Your task to perform on an android device: turn on data saver in the chrome app Image 0: 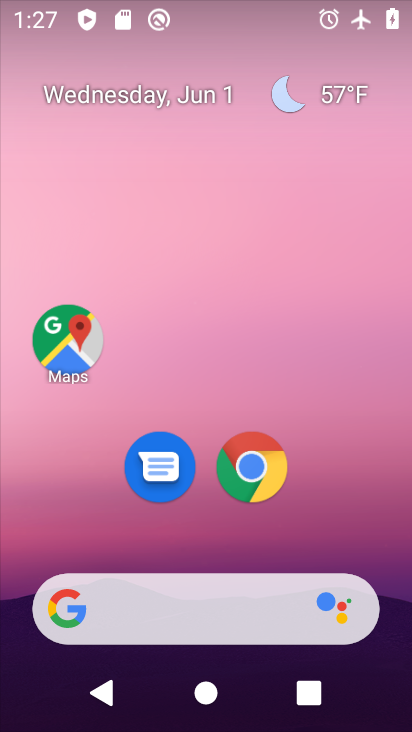
Step 0: drag from (387, 566) to (381, 198)
Your task to perform on an android device: turn on data saver in the chrome app Image 1: 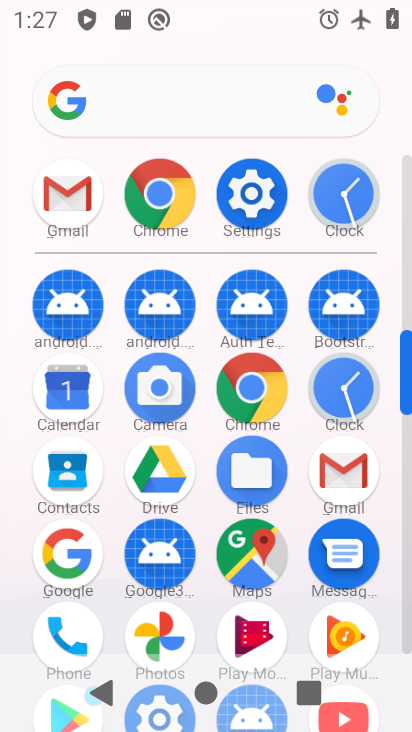
Step 1: click (267, 401)
Your task to perform on an android device: turn on data saver in the chrome app Image 2: 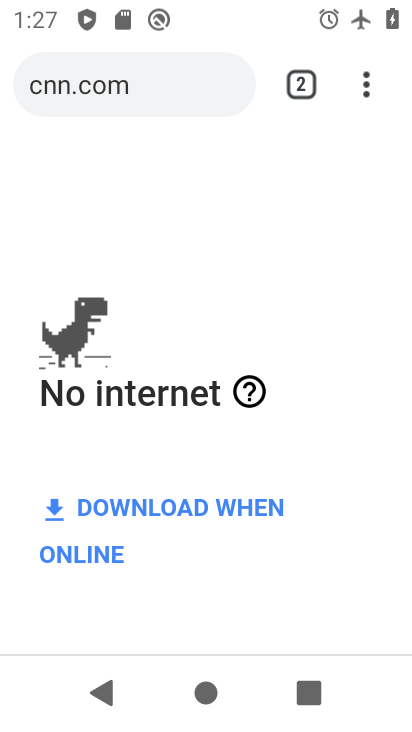
Step 2: click (370, 93)
Your task to perform on an android device: turn on data saver in the chrome app Image 3: 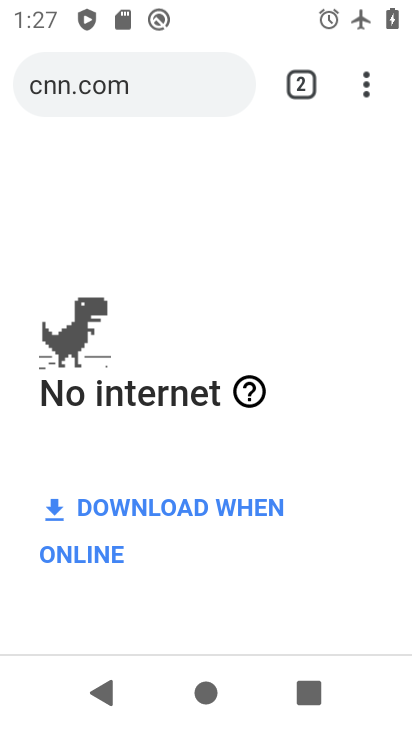
Step 3: click (362, 87)
Your task to perform on an android device: turn on data saver in the chrome app Image 4: 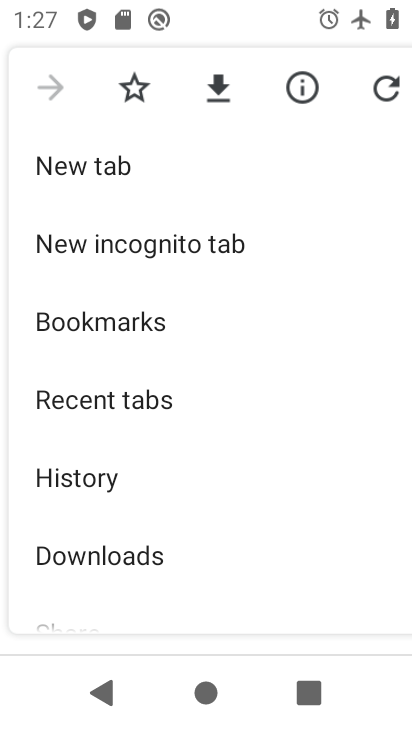
Step 4: drag from (316, 421) to (318, 281)
Your task to perform on an android device: turn on data saver in the chrome app Image 5: 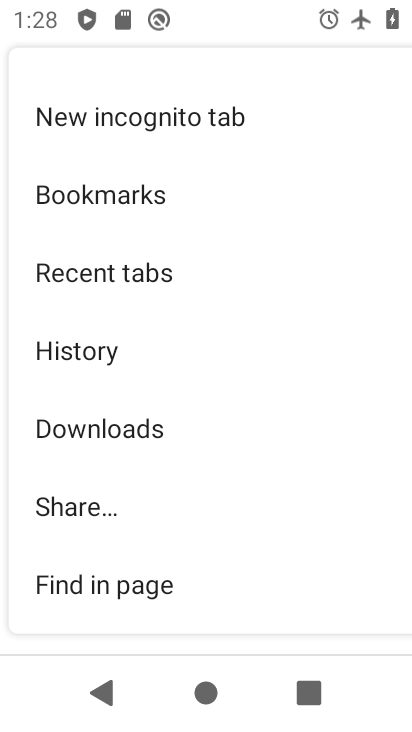
Step 5: drag from (304, 426) to (312, 305)
Your task to perform on an android device: turn on data saver in the chrome app Image 6: 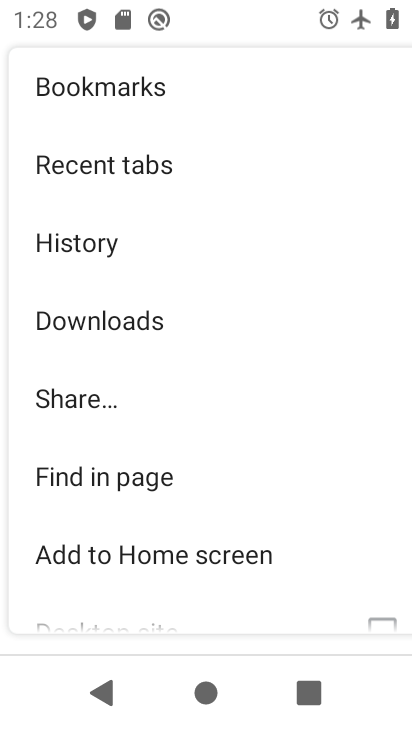
Step 6: drag from (335, 488) to (339, 323)
Your task to perform on an android device: turn on data saver in the chrome app Image 7: 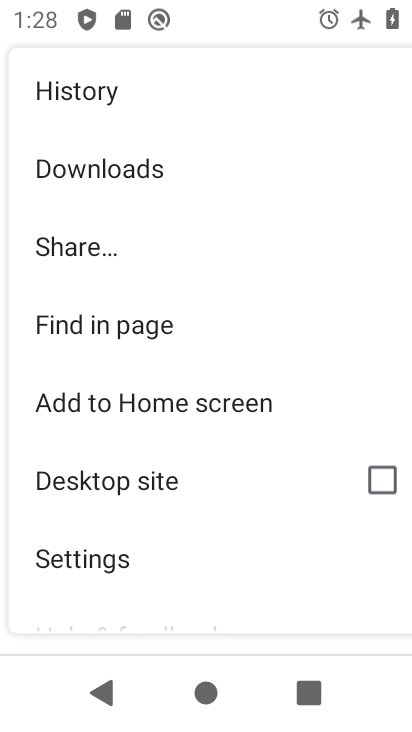
Step 7: click (184, 569)
Your task to perform on an android device: turn on data saver in the chrome app Image 8: 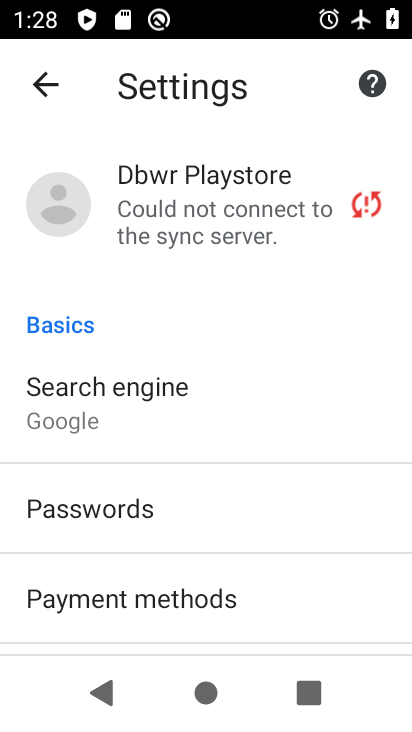
Step 8: drag from (324, 521) to (328, 368)
Your task to perform on an android device: turn on data saver in the chrome app Image 9: 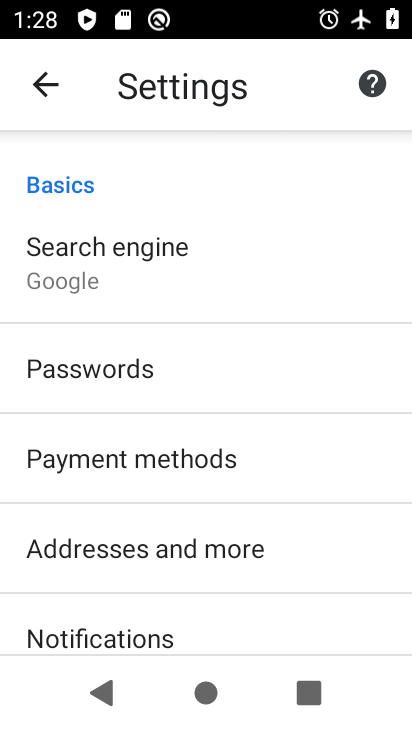
Step 9: drag from (346, 563) to (358, 424)
Your task to perform on an android device: turn on data saver in the chrome app Image 10: 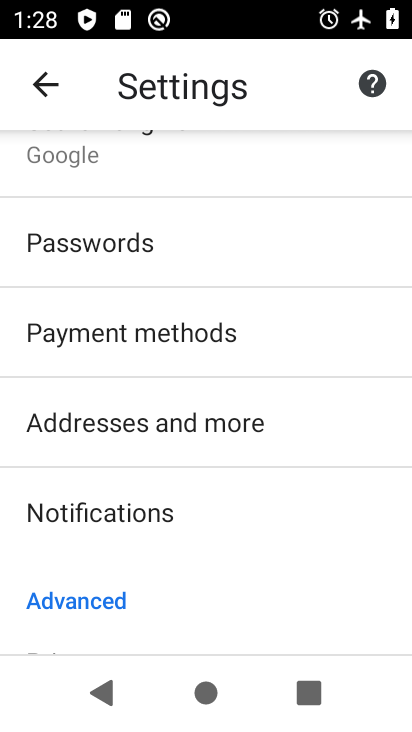
Step 10: drag from (344, 532) to (368, 380)
Your task to perform on an android device: turn on data saver in the chrome app Image 11: 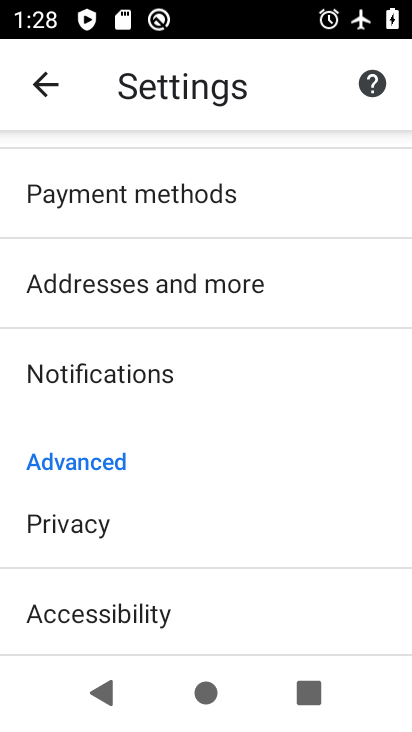
Step 11: drag from (301, 494) to (337, 301)
Your task to perform on an android device: turn on data saver in the chrome app Image 12: 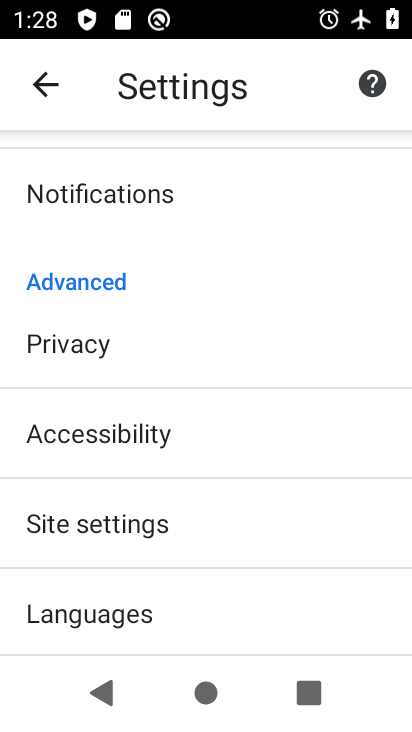
Step 12: drag from (307, 531) to (324, 387)
Your task to perform on an android device: turn on data saver in the chrome app Image 13: 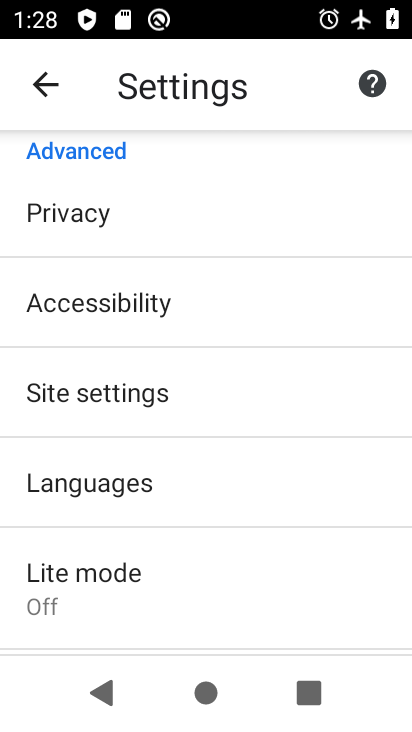
Step 13: drag from (320, 561) to (326, 362)
Your task to perform on an android device: turn on data saver in the chrome app Image 14: 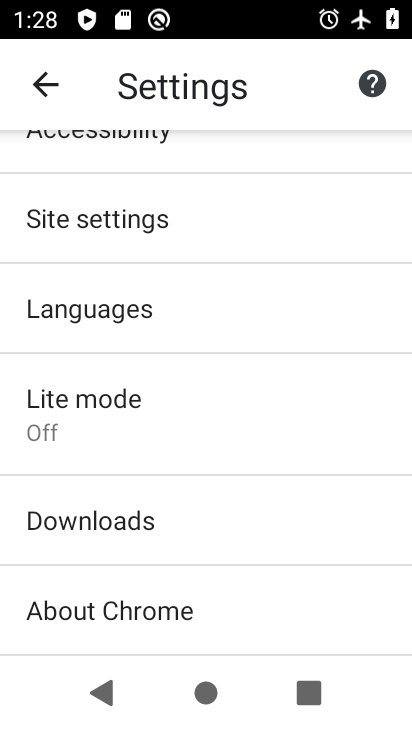
Step 14: click (224, 421)
Your task to perform on an android device: turn on data saver in the chrome app Image 15: 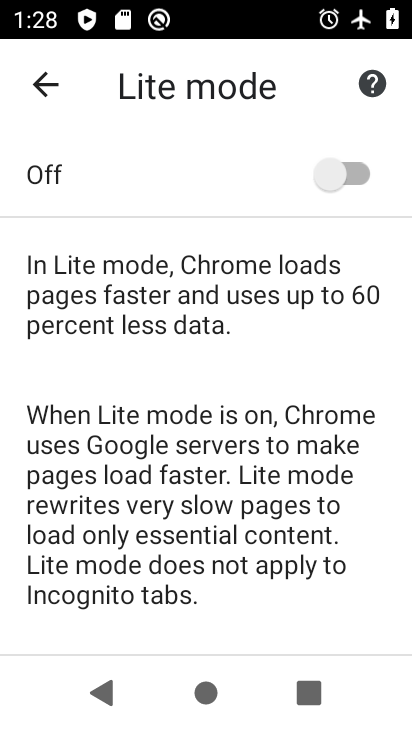
Step 15: click (336, 174)
Your task to perform on an android device: turn on data saver in the chrome app Image 16: 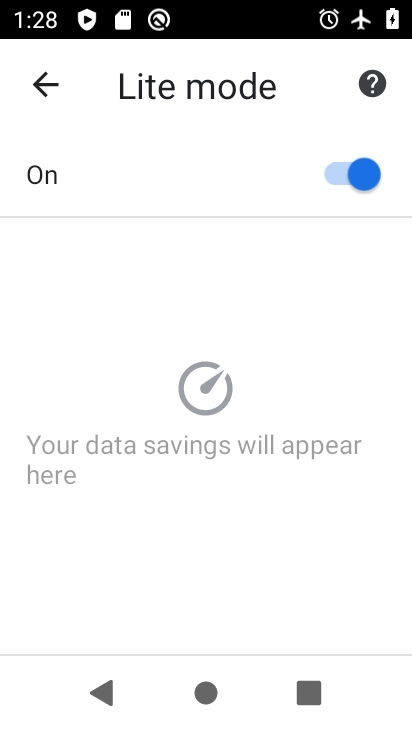
Step 16: task complete